Your task to perform on an android device: toggle notifications settings in the gmail app Image 0: 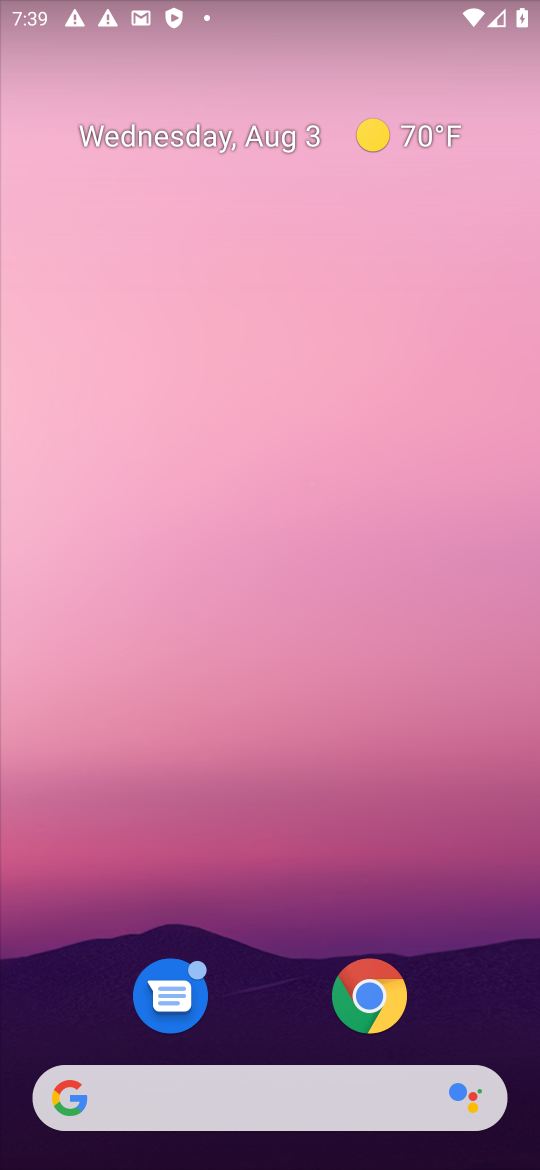
Step 0: drag from (285, 895) to (327, 10)
Your task to perform on an android device: toggle notifications settings in the gmail app Image 1: 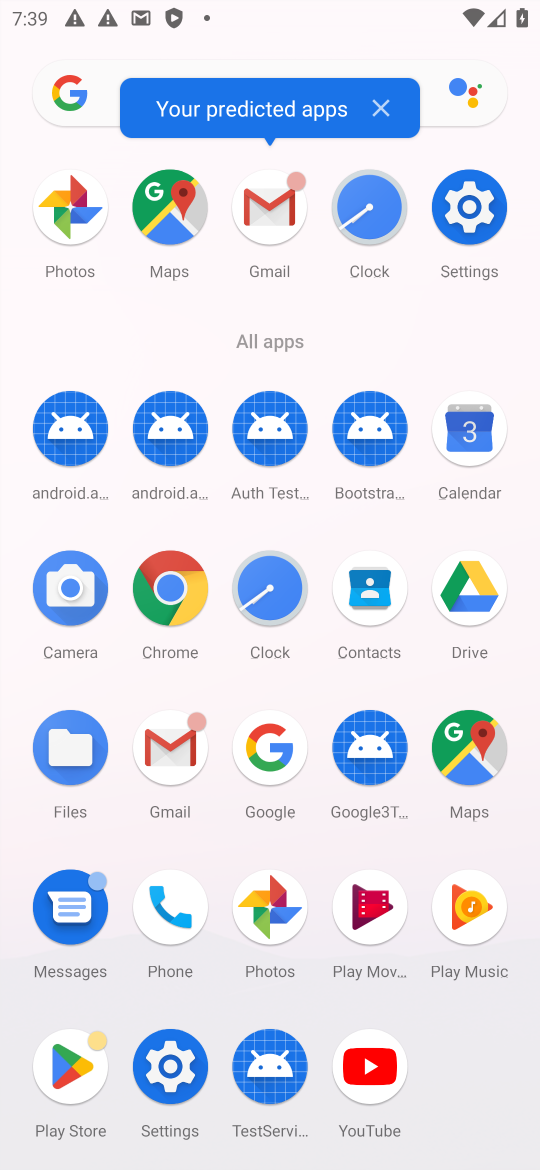
Step 1: click (279, 223)
Your task to perform on an android device: toggle notifications settings in the gmail app Image 2: 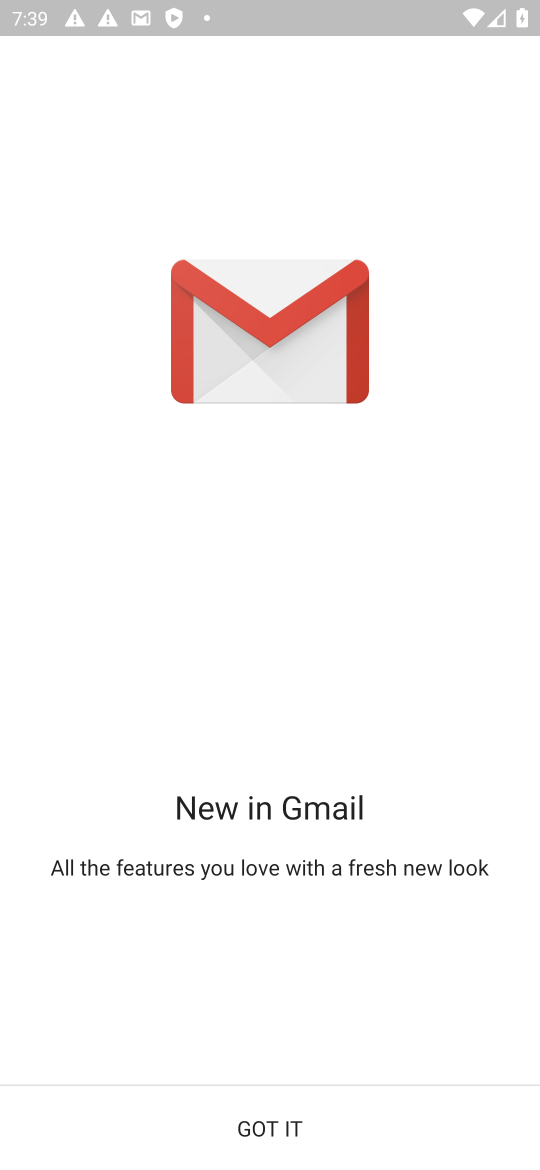
Step 2: click (287, 1128)
Your task to perform on an android device: toggle notifications settings in the gmail app Image 3: 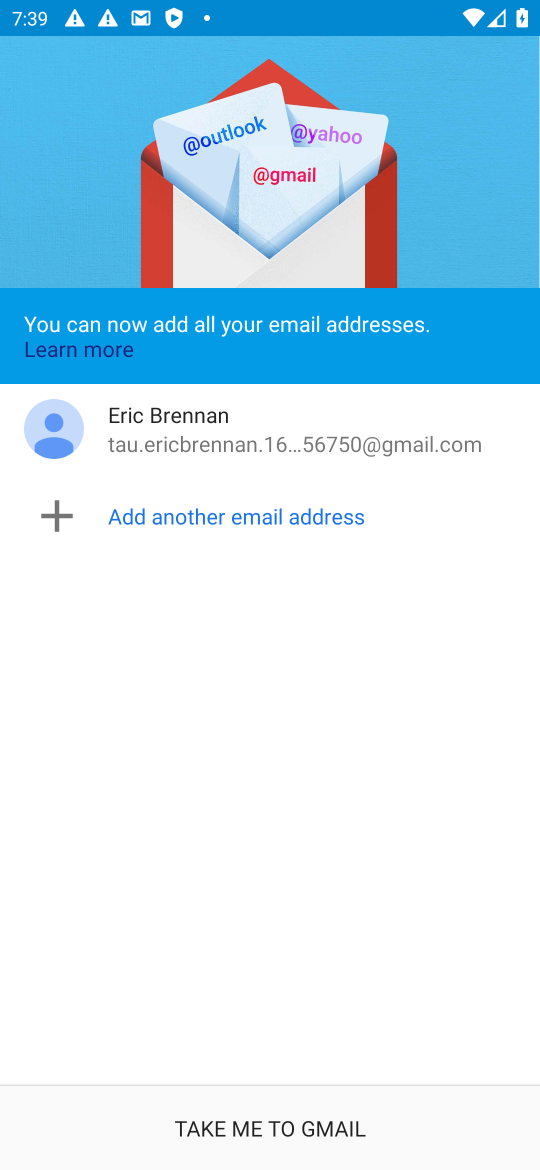
Step 3: click (287, 1128)
Your task to perform on an android device: toggle notifications settings in the gmail app Image 4: 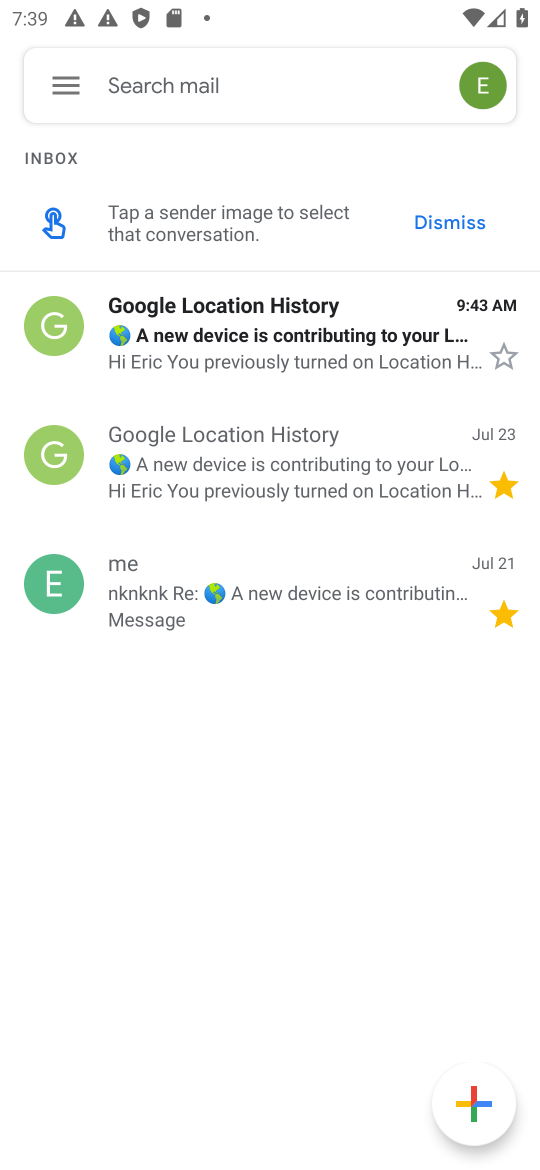
Step 4: click (70, 93)
Your task to perform on an android device: toggle notifications settings in the gmail app Image 5: 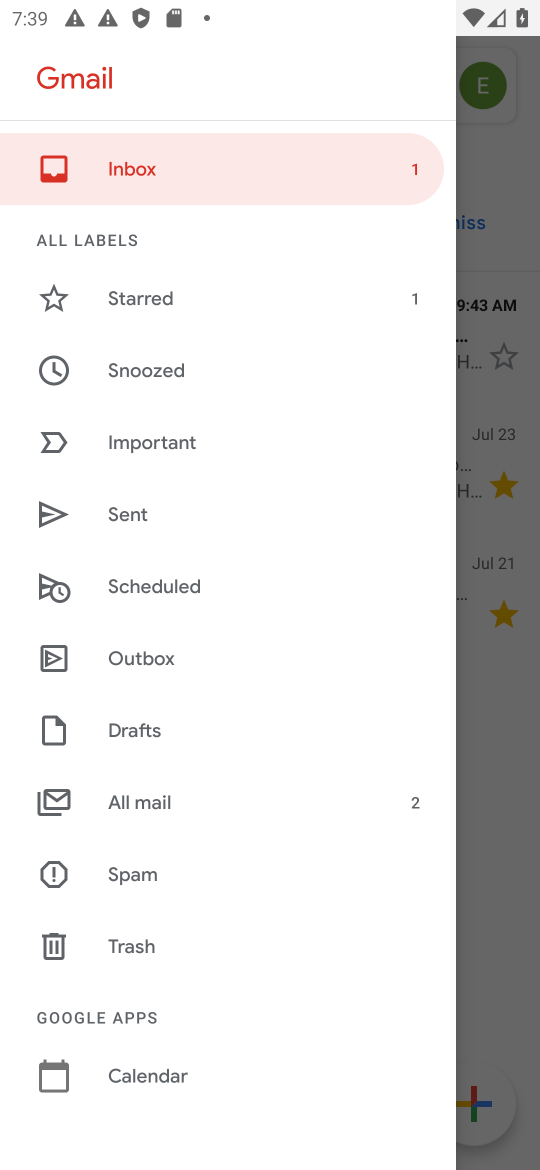
Step 5: drag from (237, 921) to (277, 440)
Your task to perform on an android device: toggle notifications settings in the gmail app Image 6: 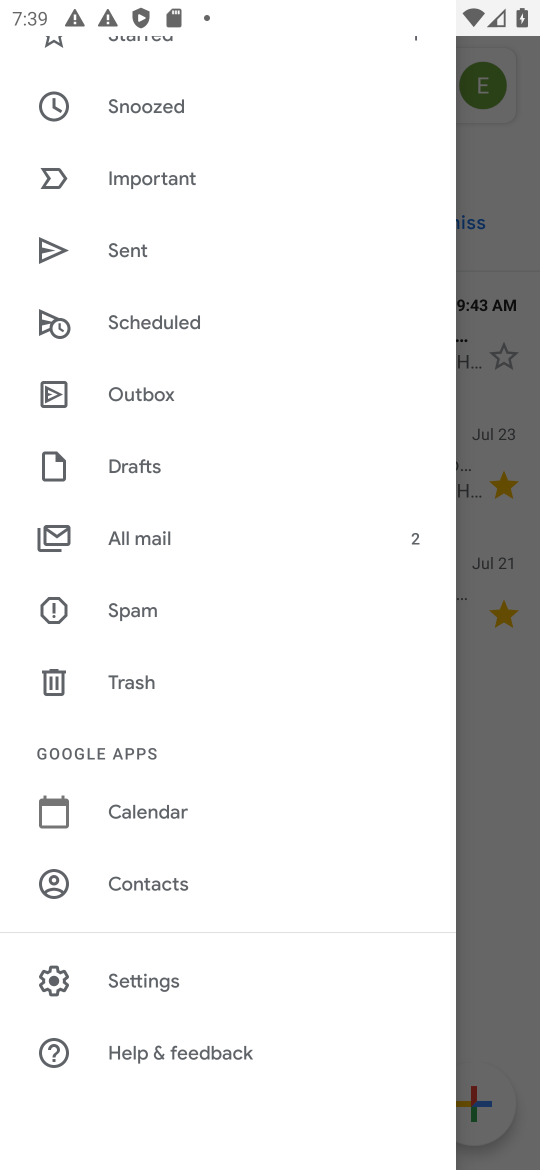
Step 6: click (167, 973)
Your task to perform on an android device: toggle notifications settings in the gmail app Image 7: 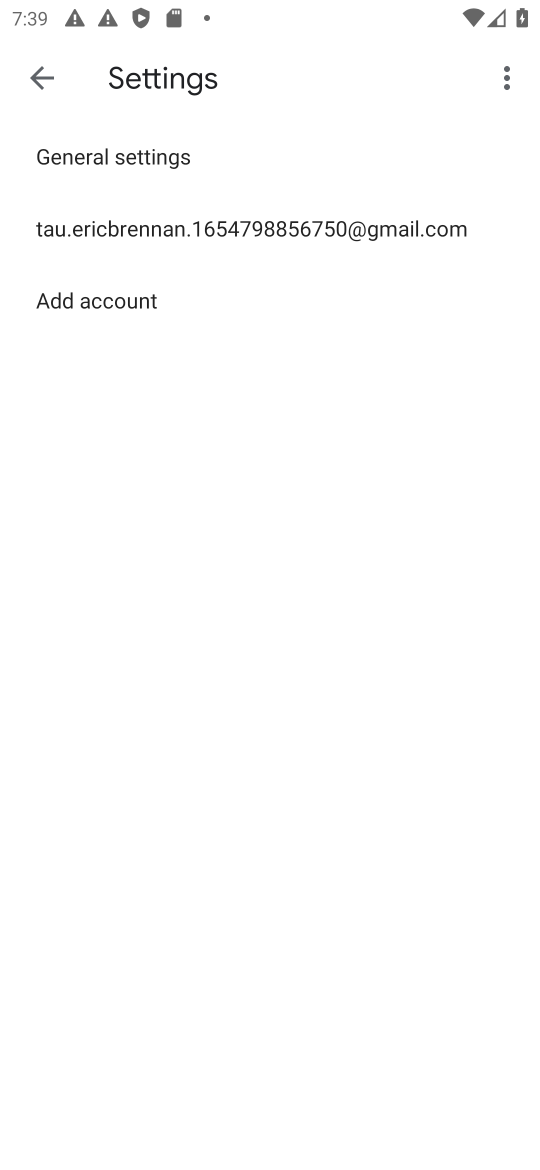
Step 7: click (258, 216)
Your task to perform on an android device: toggle notifications settings in the gmail app Image 8: 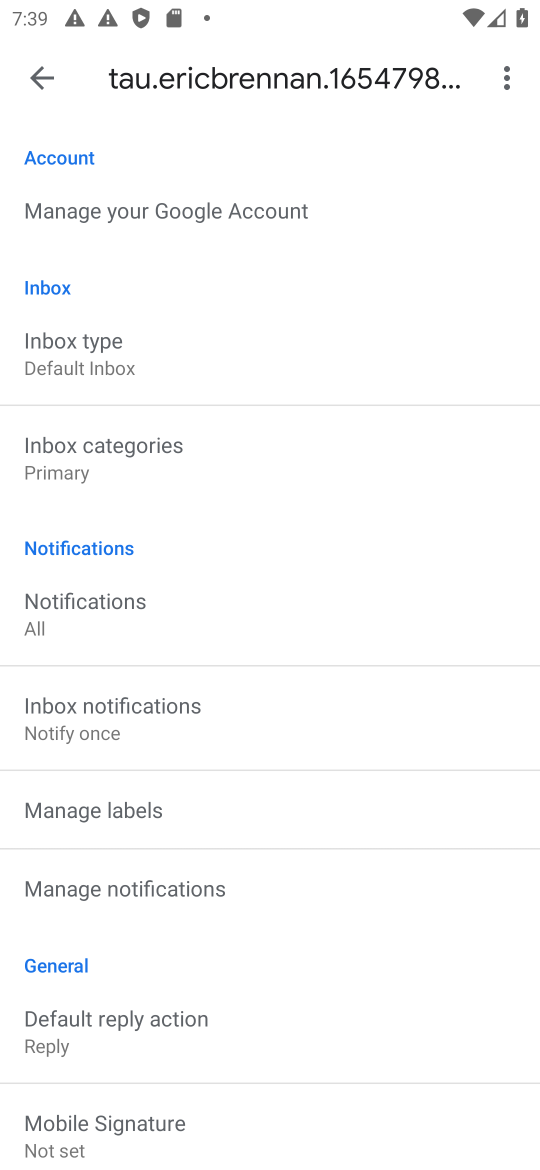
Step 8: click (97, 880)
Your task to perform on an android device: toggle notifications settings in the gmail app Image 9: 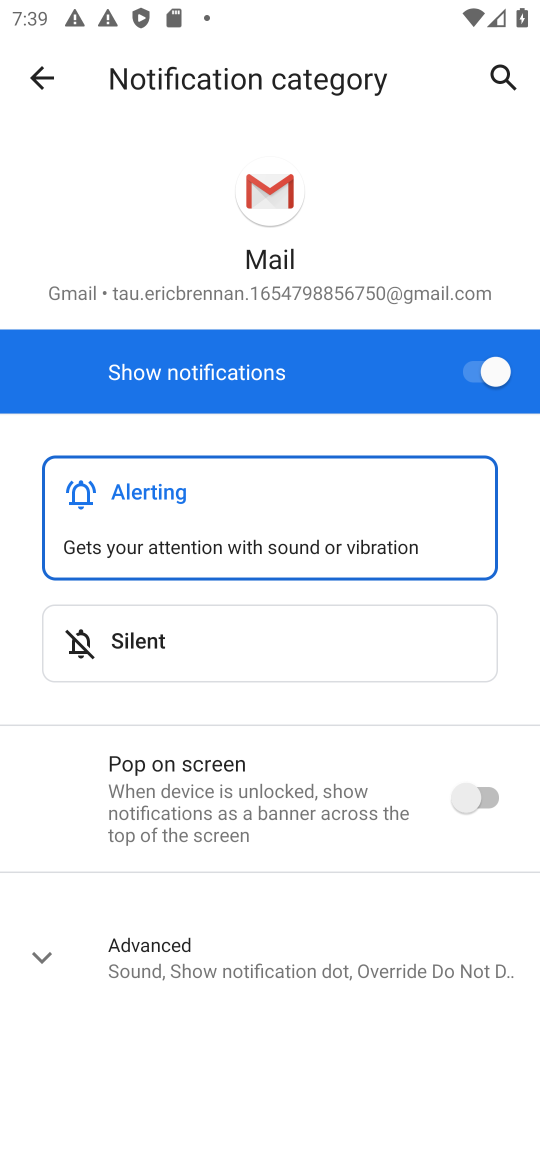
Step 9: click (481, 371)
Your task to perform on an android device: toggle notifications settings in the gmail app Image 10: 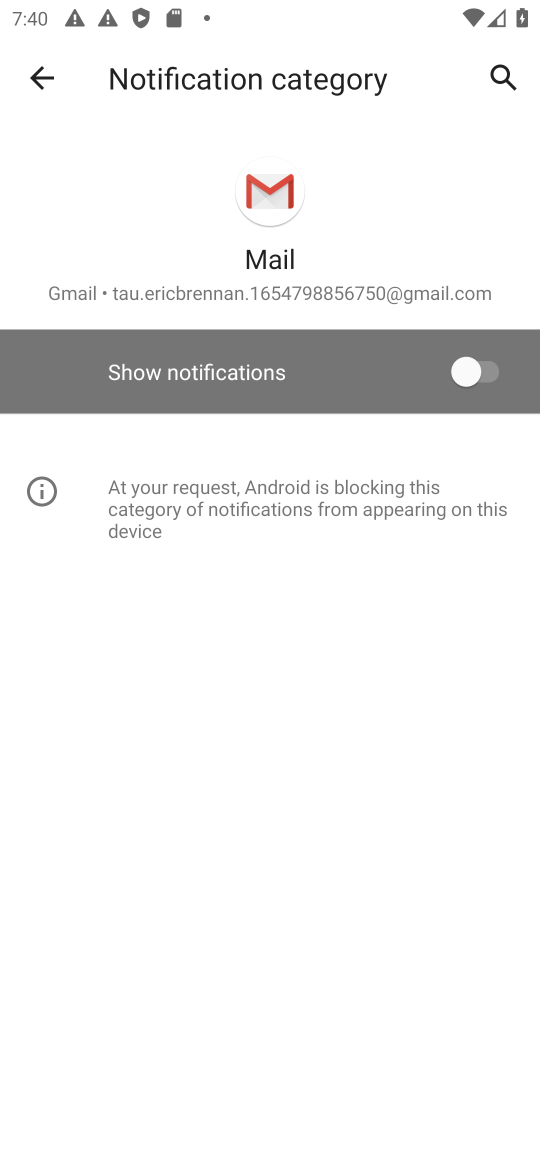
Step 10: task complete